Your task to perform on an android device: What's the weather today? Image 0: 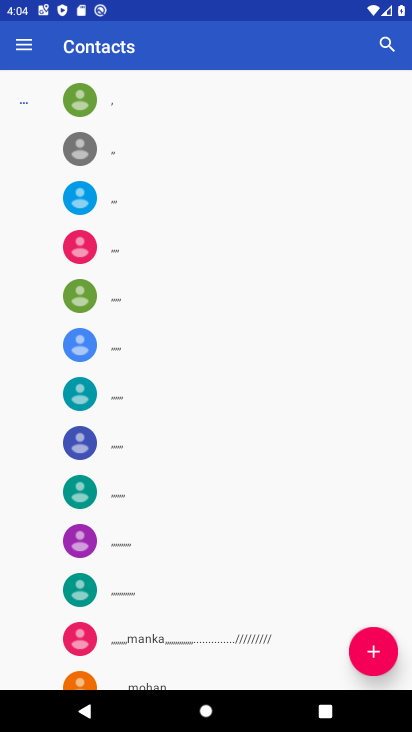
Step 0: press home button
Your task to perform on an android device: What's the weather today? Image 1: 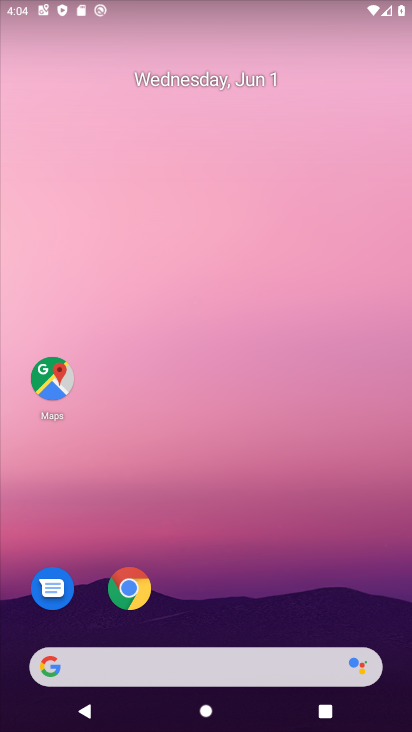
Step 1: click (135, 592)
Your task to perform on an android device: What's the weather today? Image 2: 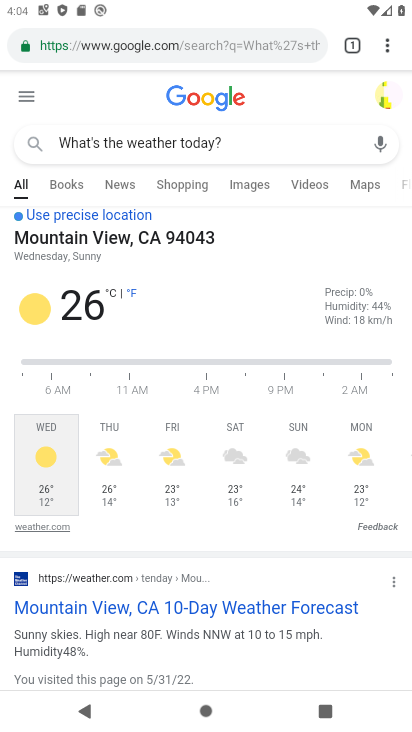
Step 2: task complete